Your task to perform on an android device: open a new tab in the chrome app Image 0: 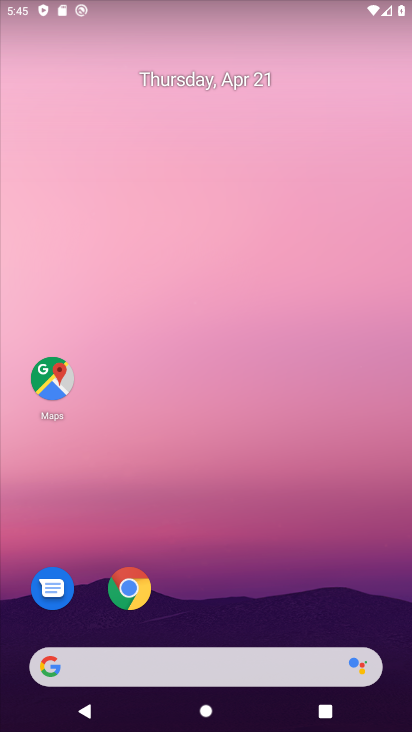
Step 0: click (122, 604)
Your task to perform on an android device: open a new tab in the chrome app Image 1: 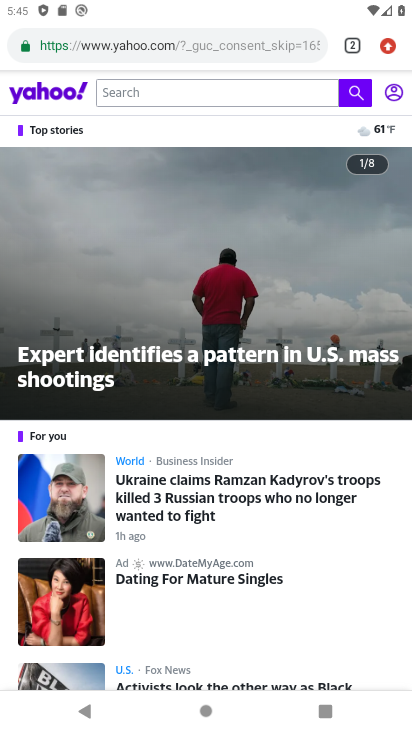
Step 1: click (350, 51)
Your task to perform on an android device: open a new tab in the chrome app Image 2: 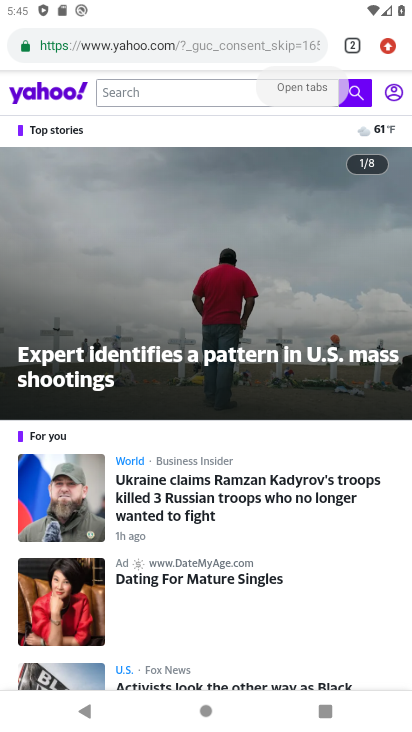
Step 2: click (352, 51)
Your task to perform on an android device: open a new tab in the chrome app Image 3: 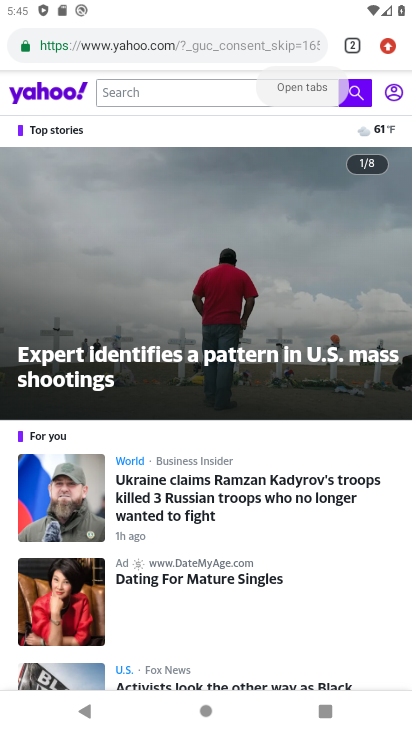
Step 3: click (350, 40)
Your task to perform on an android device: open a new tab in the chrome app Image 4: 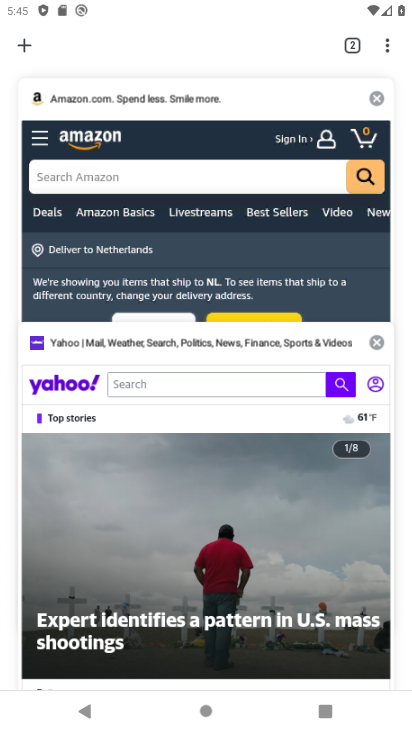
Step 4: click (21, 42)
Your task to perform on an android device: open a new tab in the chrome app Image 5: 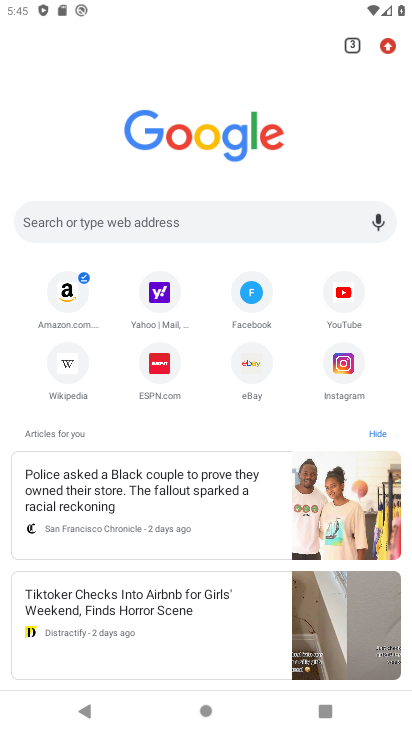
Step 5: task complete